Your task to perform on an android device: Go to Android settings Image 0: 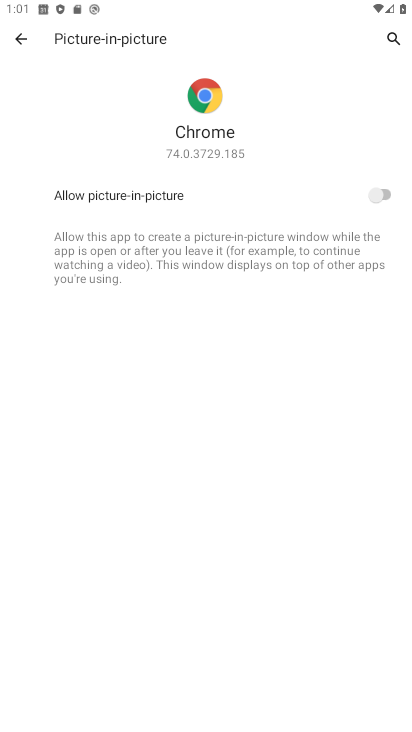
Step 0: press home button
Your task to perform on an android device: Go to Android settings Image 1: 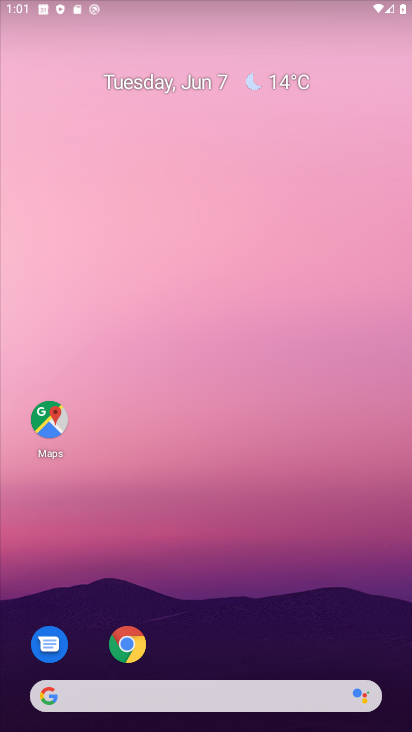
Step 1: drag from (127, 726) to (85, 22)
Your task to perform on an android device: Go to Android settings Image 2: 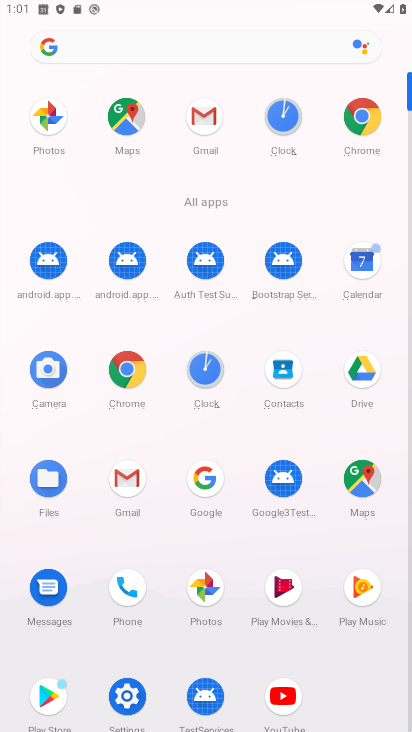
Step 2: click (135, 701)
Your task to perform on an android device: Go to Android settings Image 3: 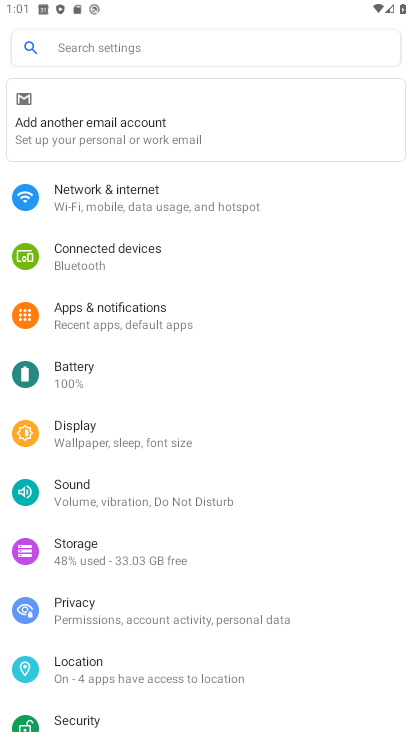
Step 3: task complete